Your task to perform on an android device: When is my next meeting? Image 0: 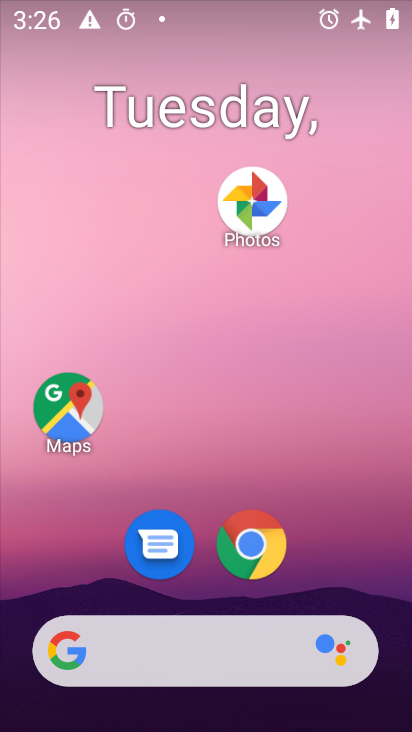
Step 0: drag from (336, 549) to (329, 61)
Your task to perform on an android device: When is my next meeting? Image 1: 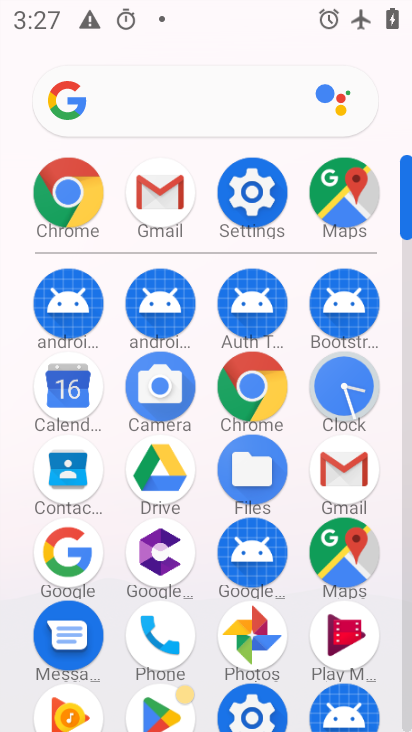
Step 1: click (85, 371)
Your task to perform on an android device: When is my next meeting? Image 2: 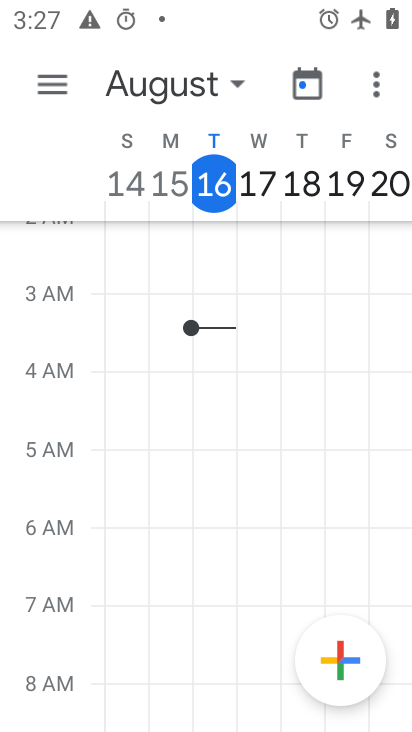
Step 2: task complete